Your task to perform on an android device: Open Chrome and go to settings Image 0: 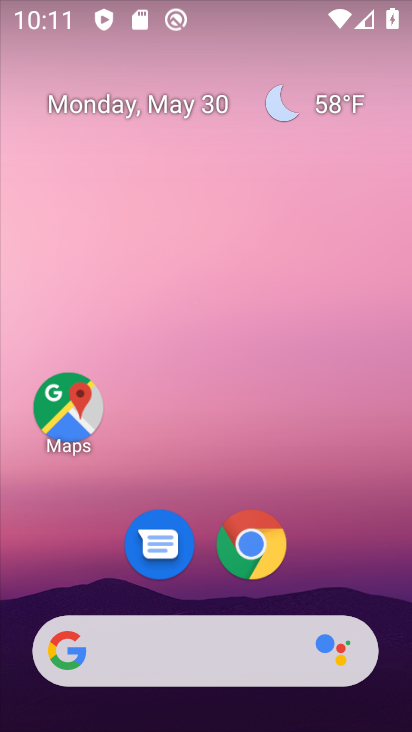
Step 0: click (243, 522)
Your task to perform on an android device: Open Chrome and go to settings Image 1: 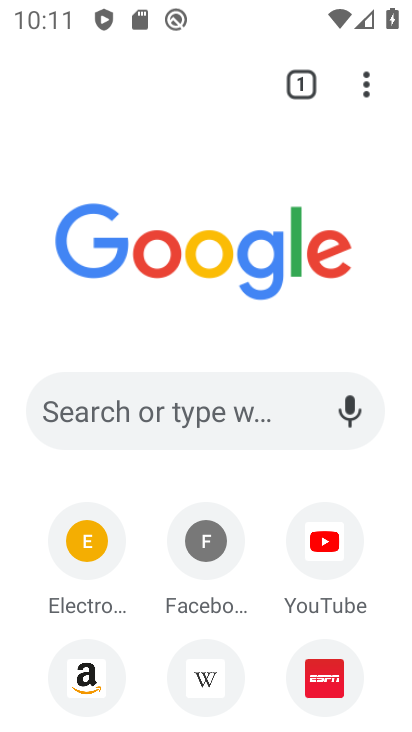
Step 1: click (397, 80)
Your task to perform on an android device: Open Chrome and go to settings Image 2: 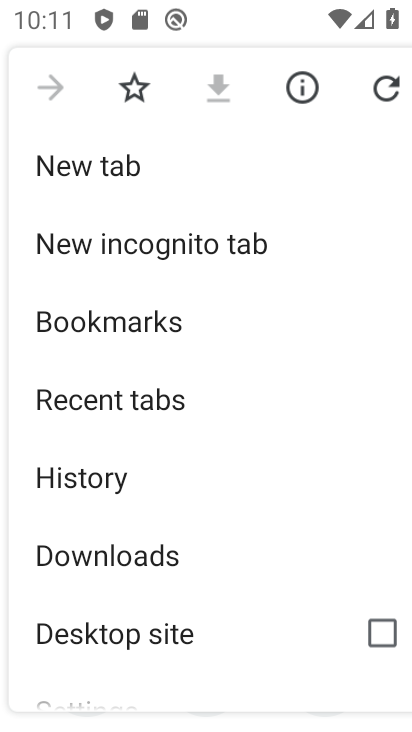
Step 2: drag from (158, 601) to (178, 205)
Your task to perform on an android device: Open Chrome and go to settings Image 3: 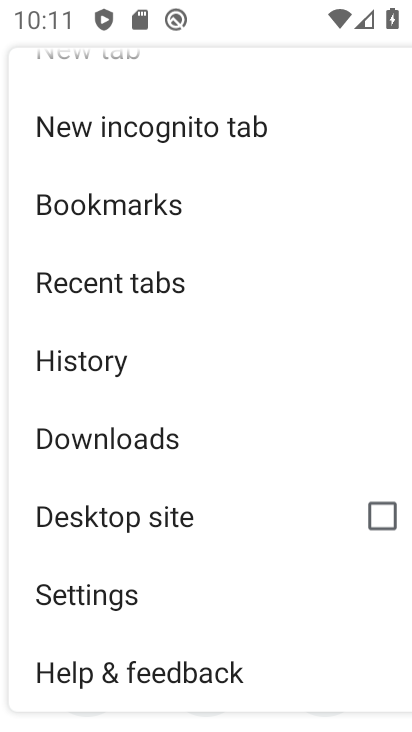
Step 3: click (120, 568)
Your task to perform on an android device: Open Chrome and go to settings Image 4: 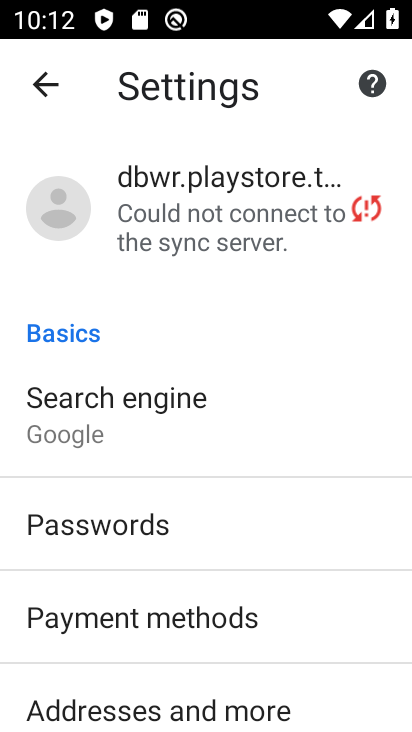
Step 4: task complete